Your task to perform on an android device: star an email in the gmail app Image 0: 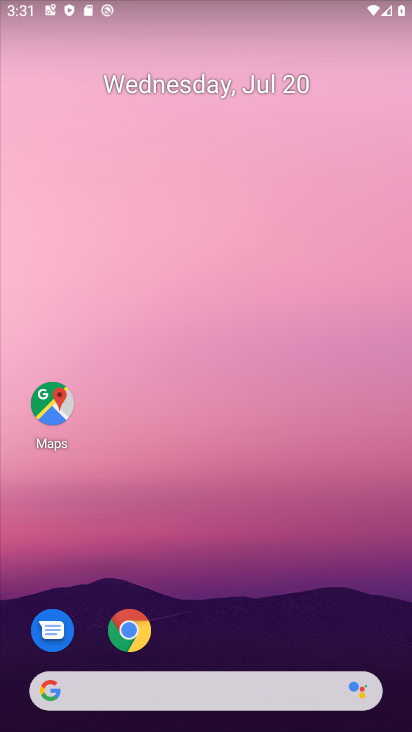
Step 0: drag from (227, 648) to (202, 44)
Your task to perform on an android device: star an email in the gmail app Image 1: 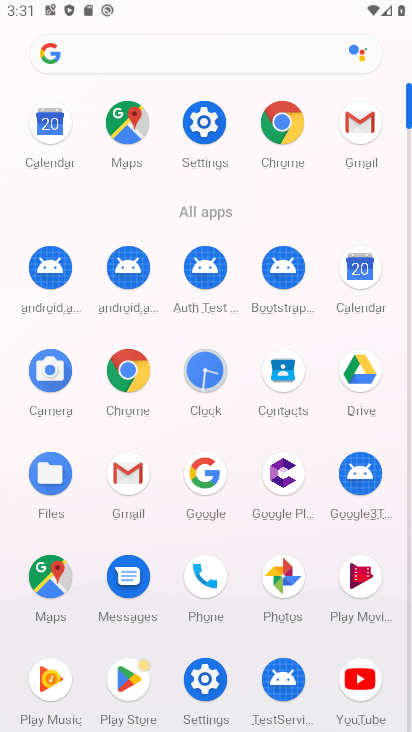
Step 1: click (124, 469)
Your task to perform on an android device: star an email in the gmail app Image 2: 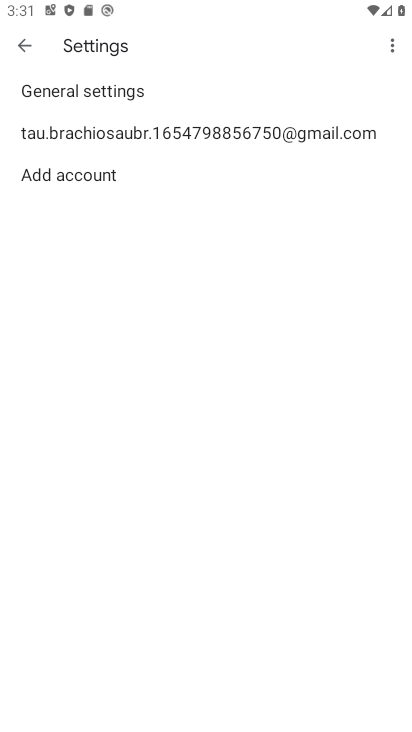
Step 2: click (31, 37)
Your task to perform on an android device: star an email in the gmail app Image 3: 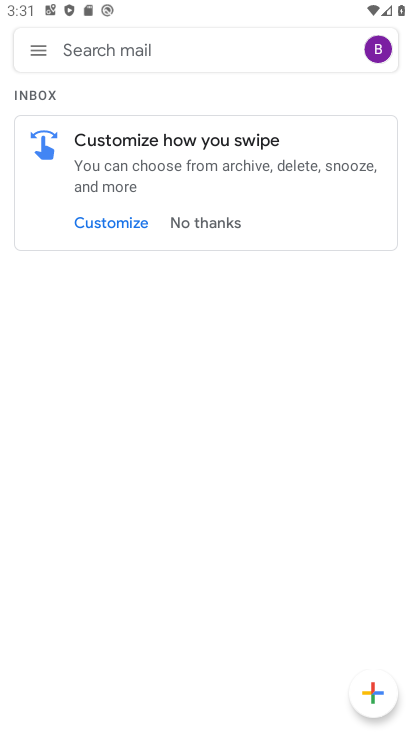
Step 3: click (29, 44)
Your task to perform on an android device: star an email in the gmail app Image 4: 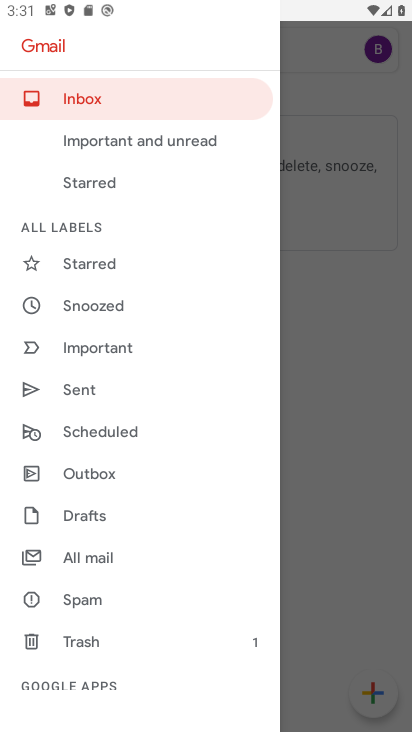
Step 4: click (96, 557)
Your task to perform on an android device: star an email in the gmail app Image 5: 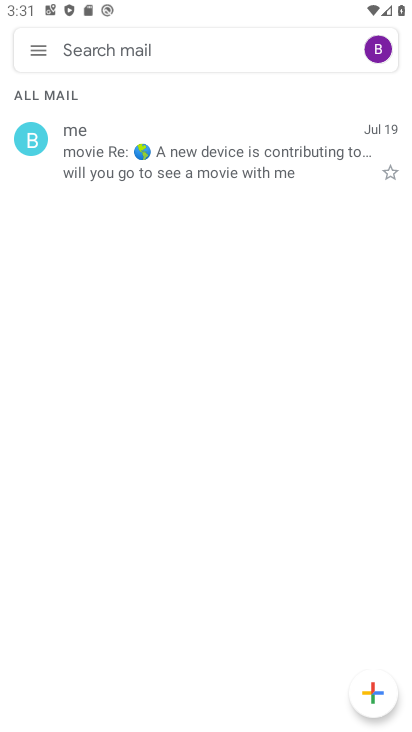
Step 5: click (386, 170)
Your task to perform on an android device: star an email in the gmail app Image 6: 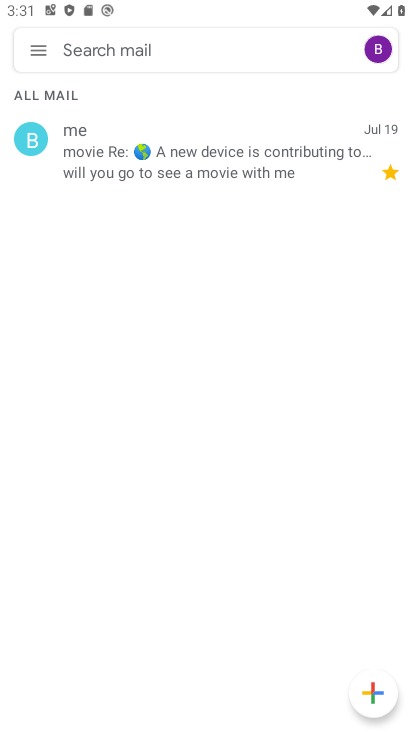
Step 6: task complete